Your task to perform on an android device: change notifications settings Image 0: 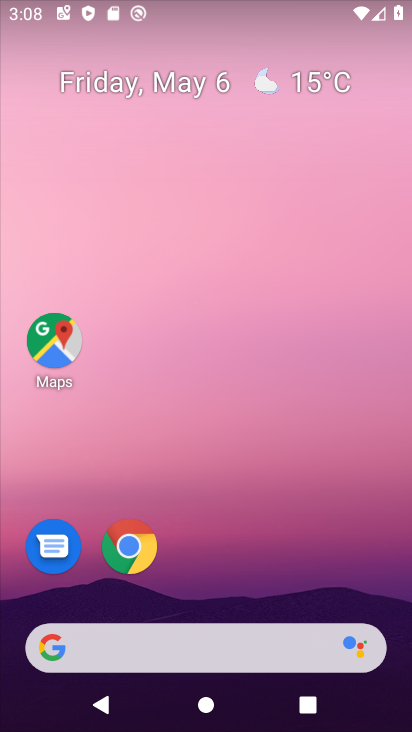
Step 0: drag from (313, 544) to (340, 69)
Your task to perform on an android device: change notifications settings Image 1: 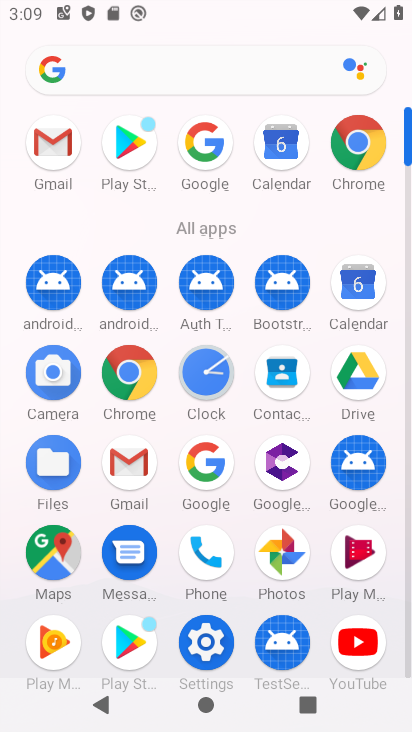
Step 1: click (205, 632)
Your task to perform on an android device: change notifications settings Image 2: 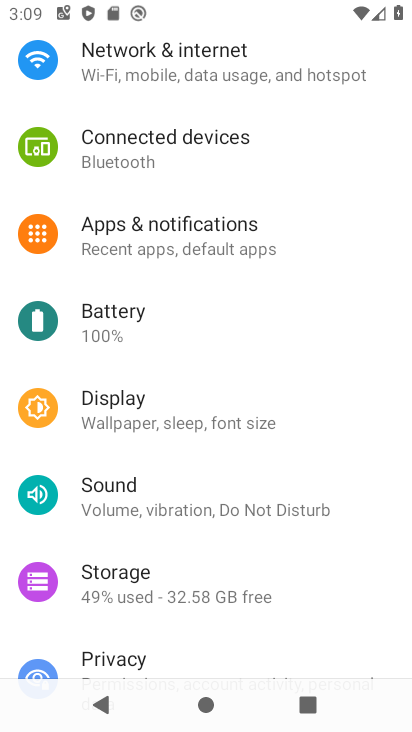
Step 2: click (250, 249)
Your task to perform on an android device: change notifications settings Image 3: 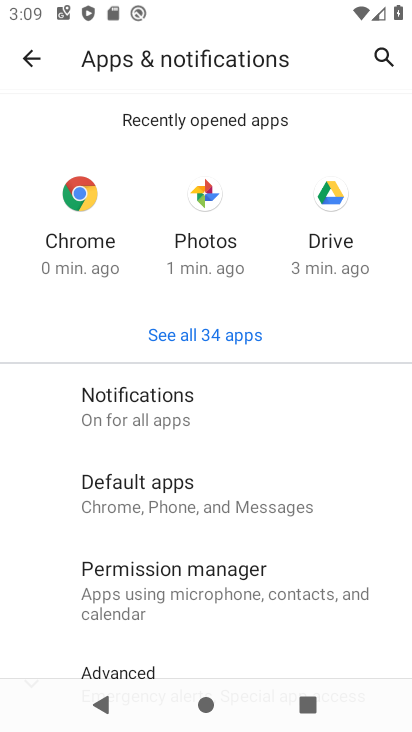
Step 3: click (253, 395)
Your task to perform on an android device: change notifications settings Image 4: 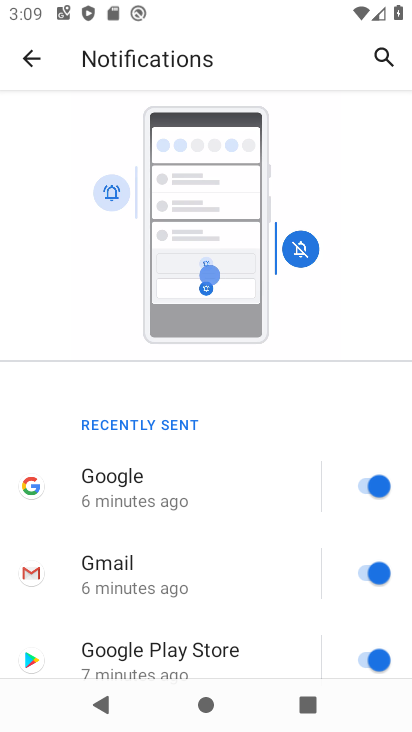
Step 4: drag from (273, 618) to (306, 335)
Your task to perform on an android device: change notifications settings Image 5: 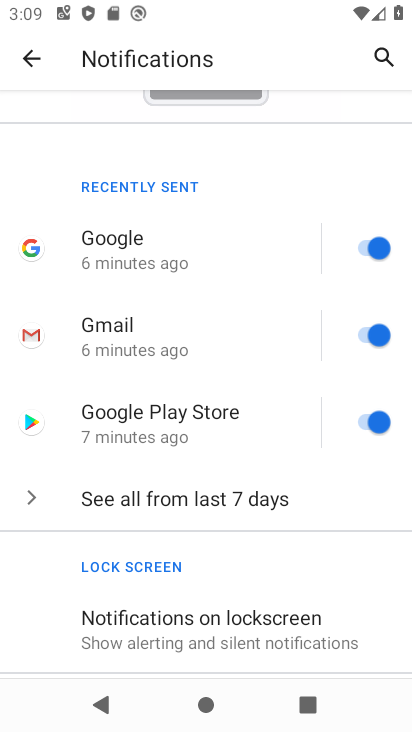
Step 5: click (310, 627)
Your task to perform on an android device: change notifications settings Image 6: 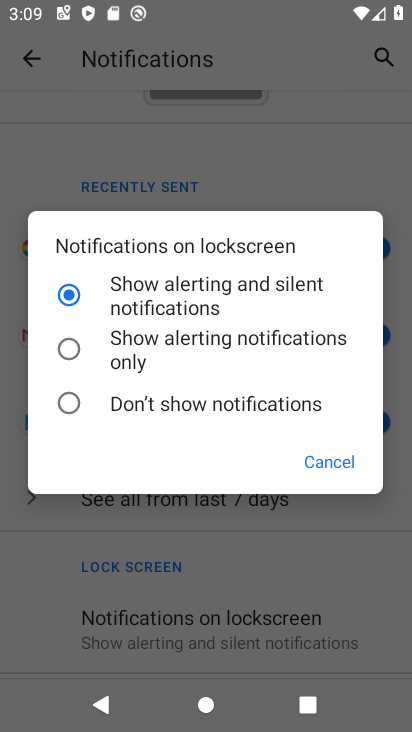
Step 6: click (335, 466)
Your task to perform on an android device: change notifications settings Image 7: 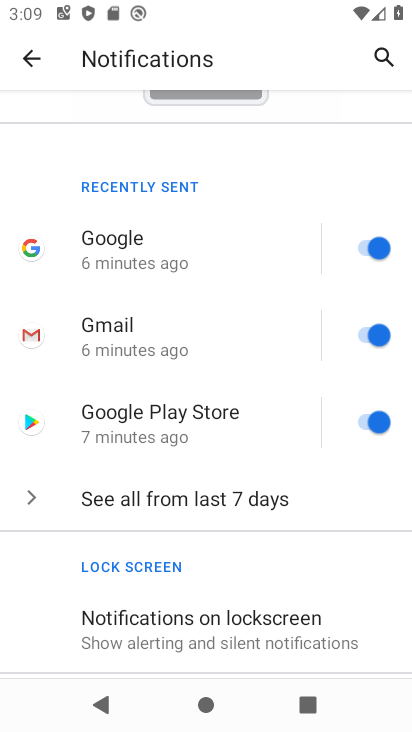
Step 7: drag from (338, 553) to (300, 142)
Your task to perform on an android device: change notifications settings Image 8: 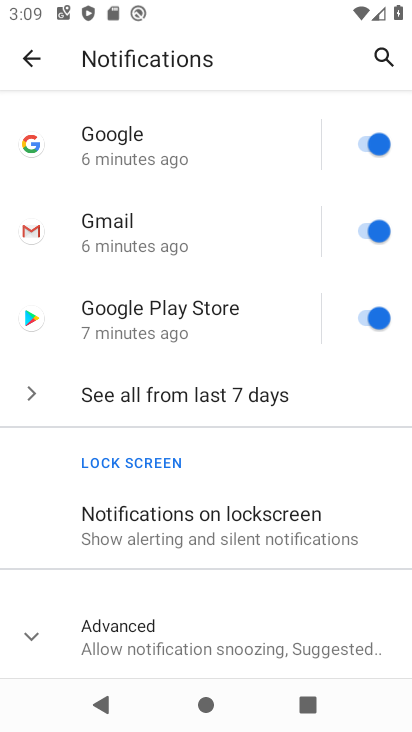
Step 8: click (324, 646)
Your task to perform on an android device: change notifications settings Image 9: 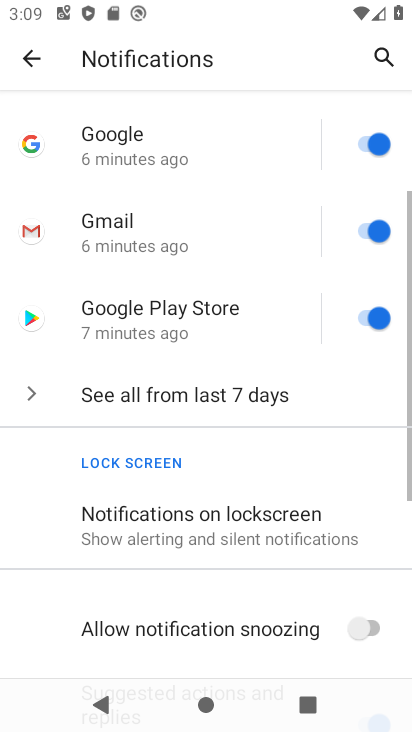
Step 9: drag from (313, 590) to (294, 305)
Your task to perform on an android device: change notifications settings Image 10: 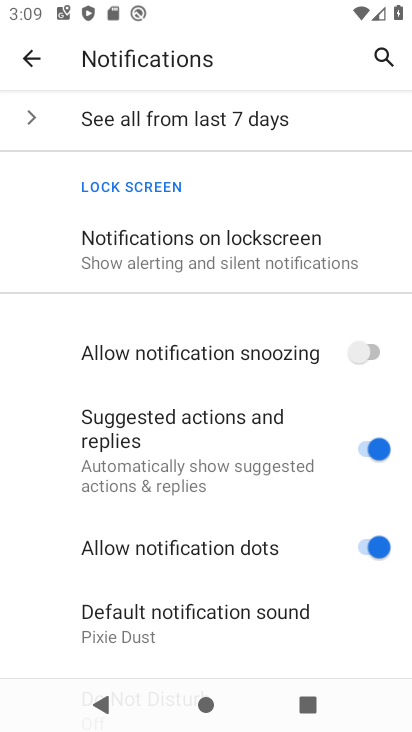
Step 10: click (368, 350)
Your task to perform on an android device: change notifications settings Image 11: 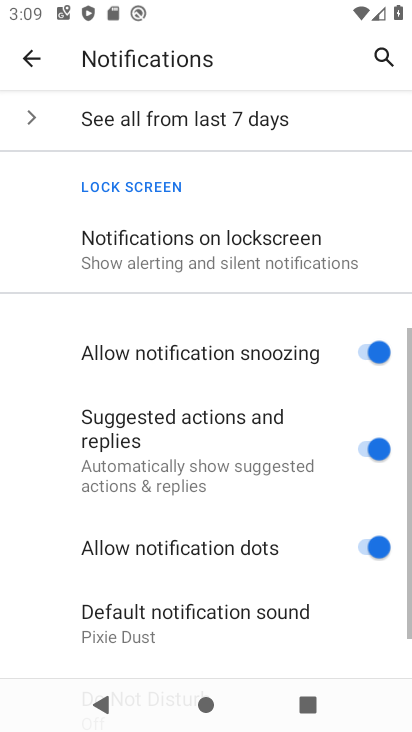
Step 11: click (374, 440)
Your task to perform on an android device: change notifications settings Image 12: 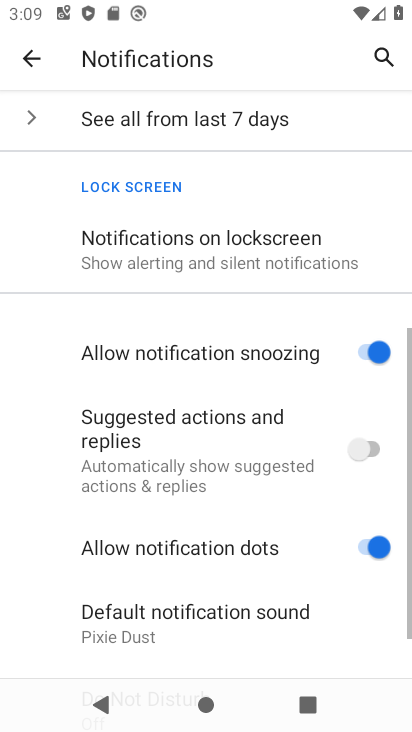
Step 12: click (379, 548)
Your task to perform on an android device: change notifications settings Image 13: 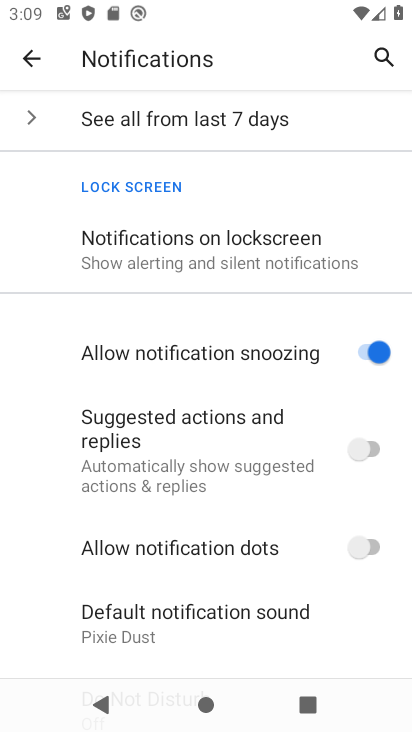
Step 13: task complete